Your task to perform on an android device: turn on showing notifications on the lock screen Image 0: 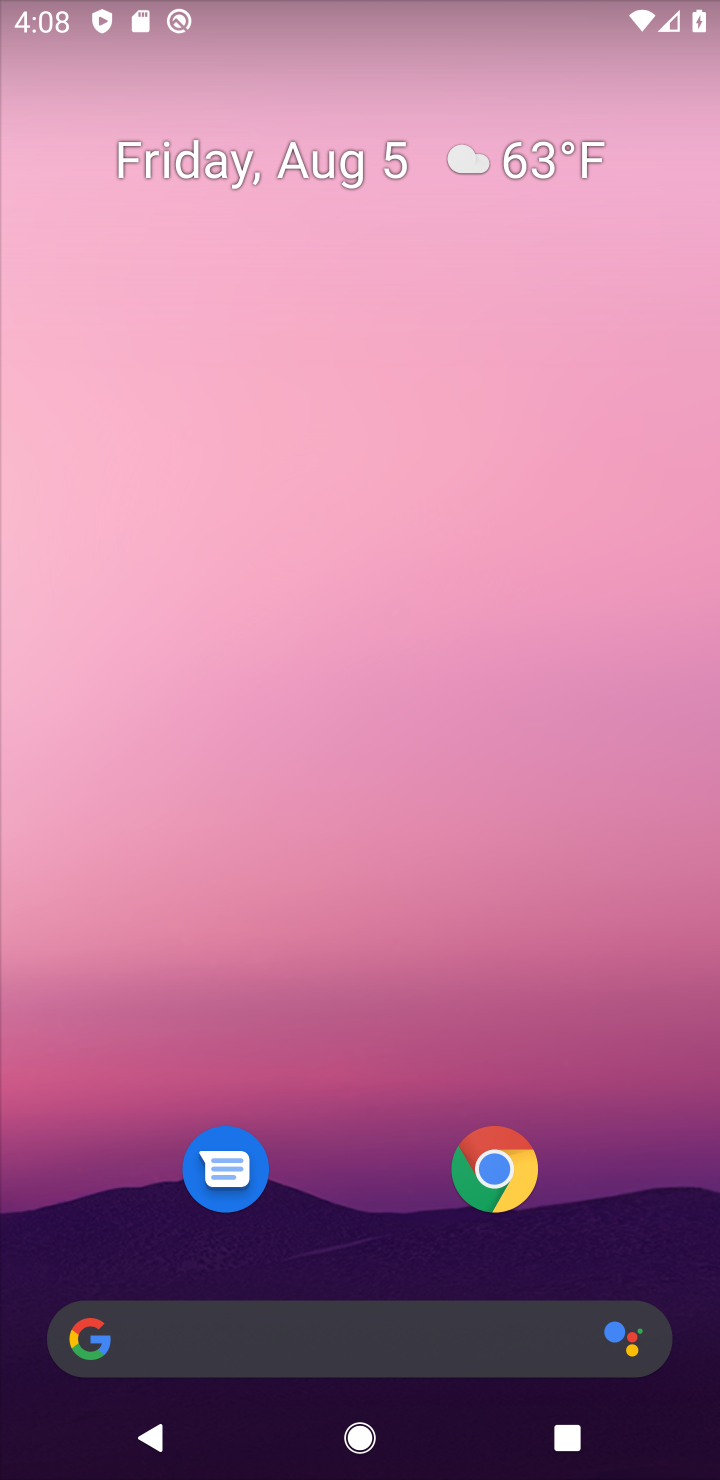
Step 0: drag from (330, 1297) to (367, 511)
Your task to perform on an android device: turn on showing notifications on the lock screen Image 1: 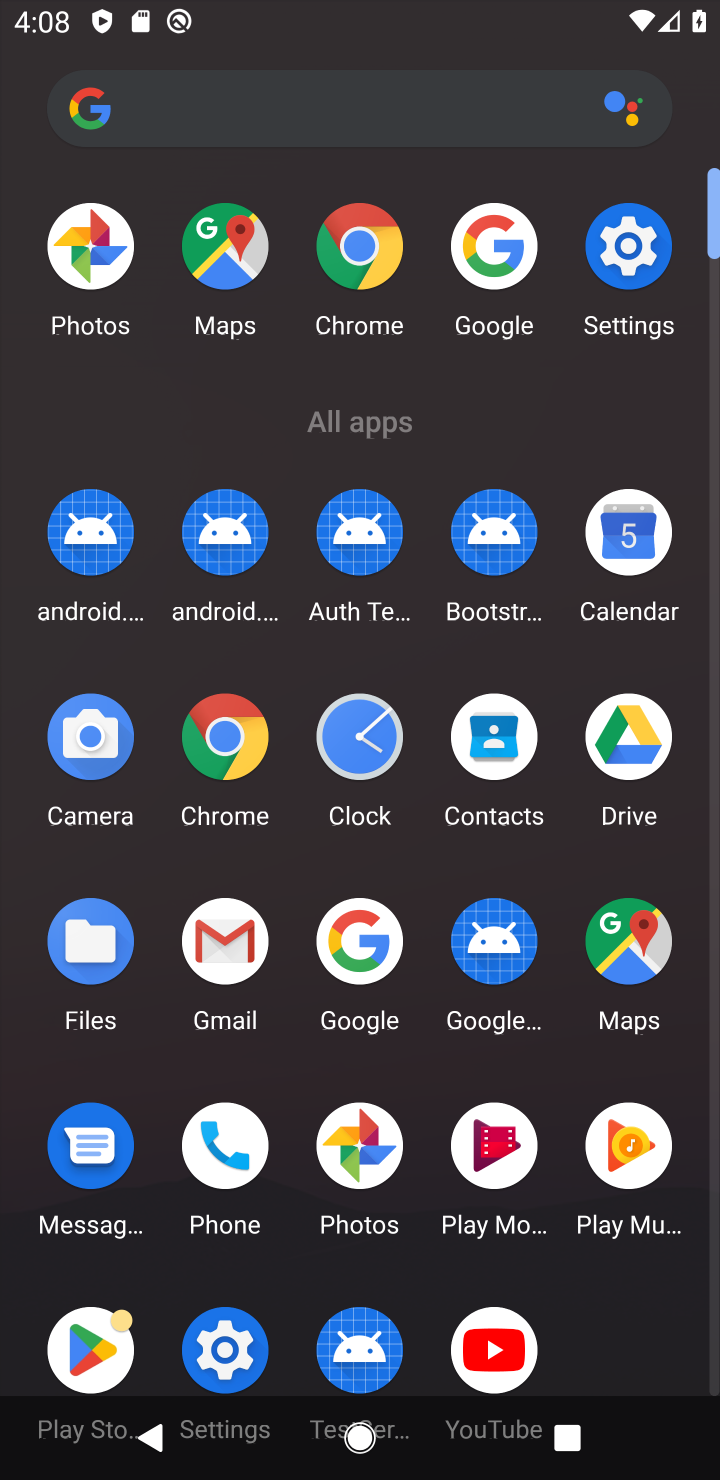
Step 1: click (625, 264)
Your task to perform on an android device: turn on showing notifications on the lock screen Image 2: 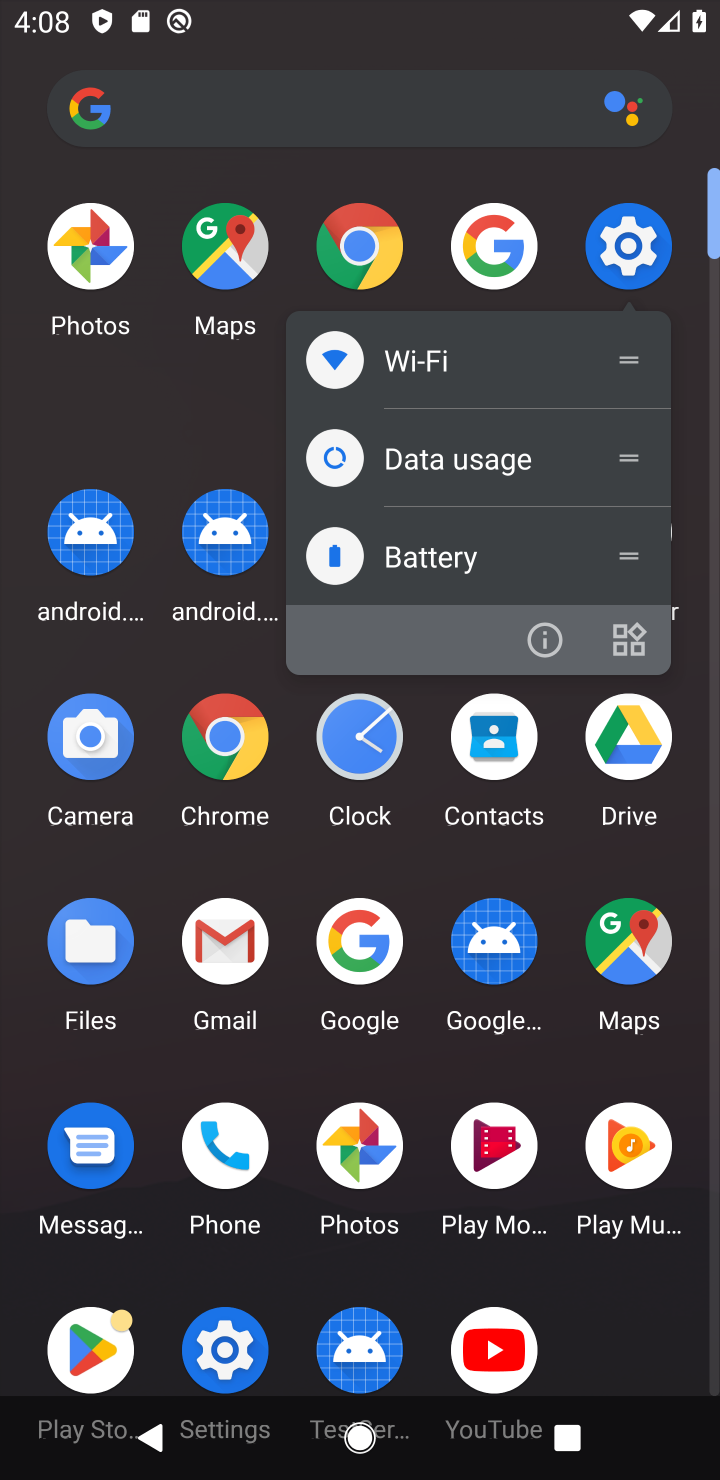
Step 2: click (625, 269)
Your task to perform on an android device: turn on showing notifications on the lock screen Image 3: 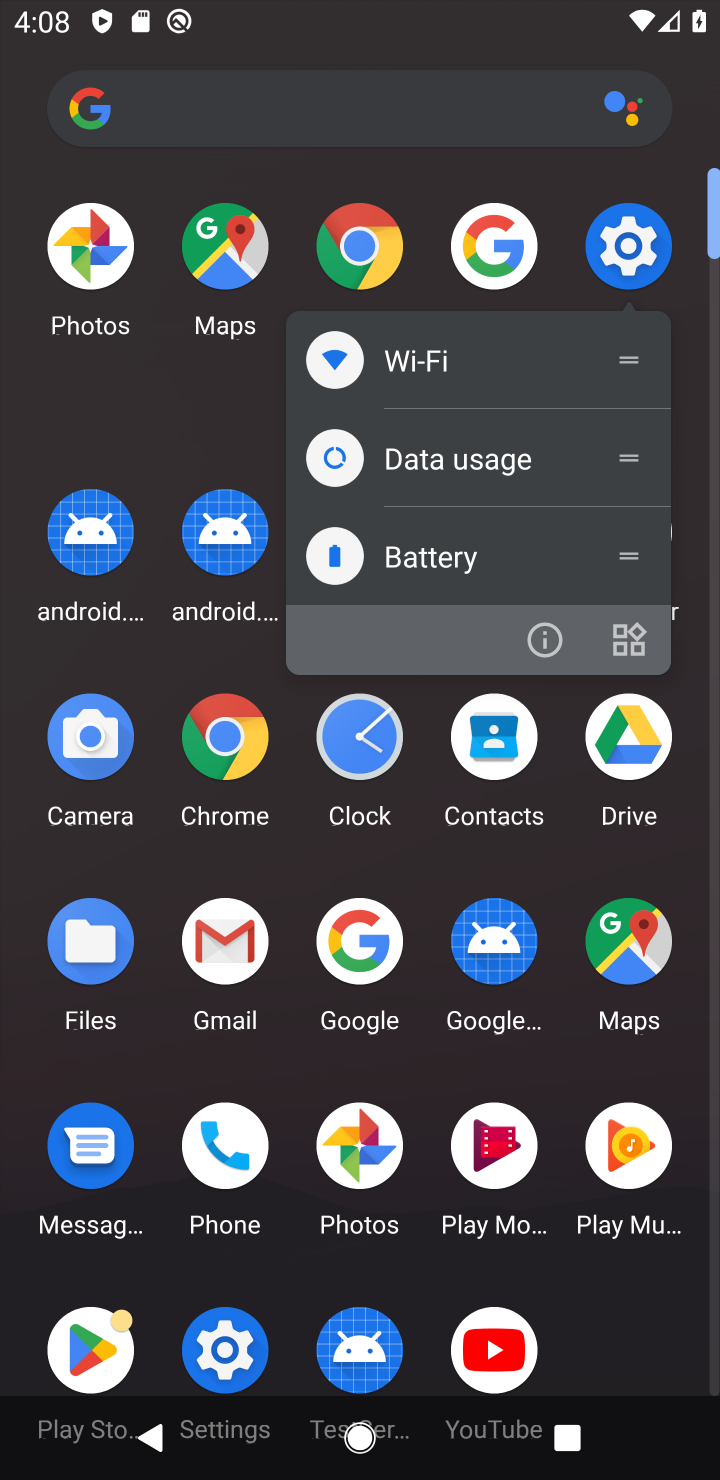
Step 3: click (622, 247)
Your task to perform on an android device: turn on showing notifications on the lock screen Image 4: 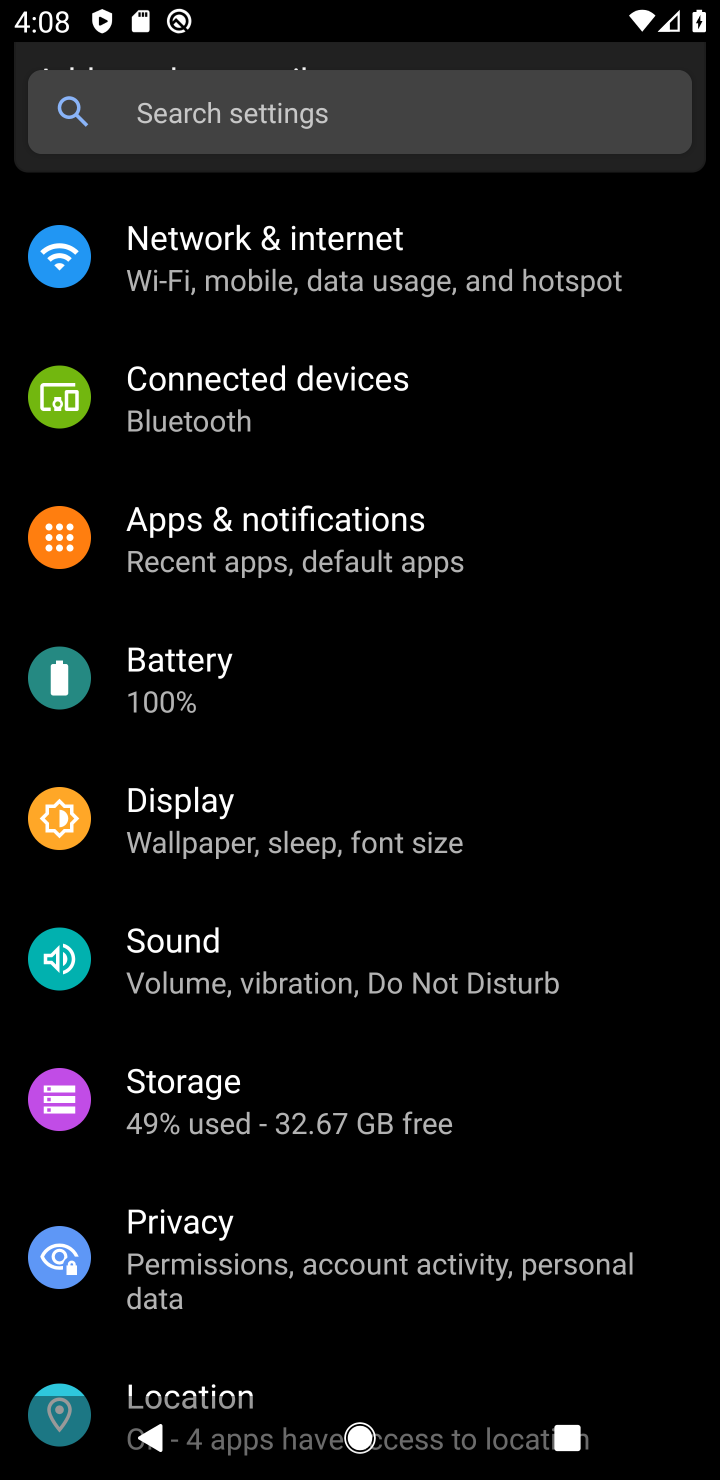
Step 4: click (268, 538)
Your task to perform on an android device: turn on showing notifications on the lock screen Image 5: 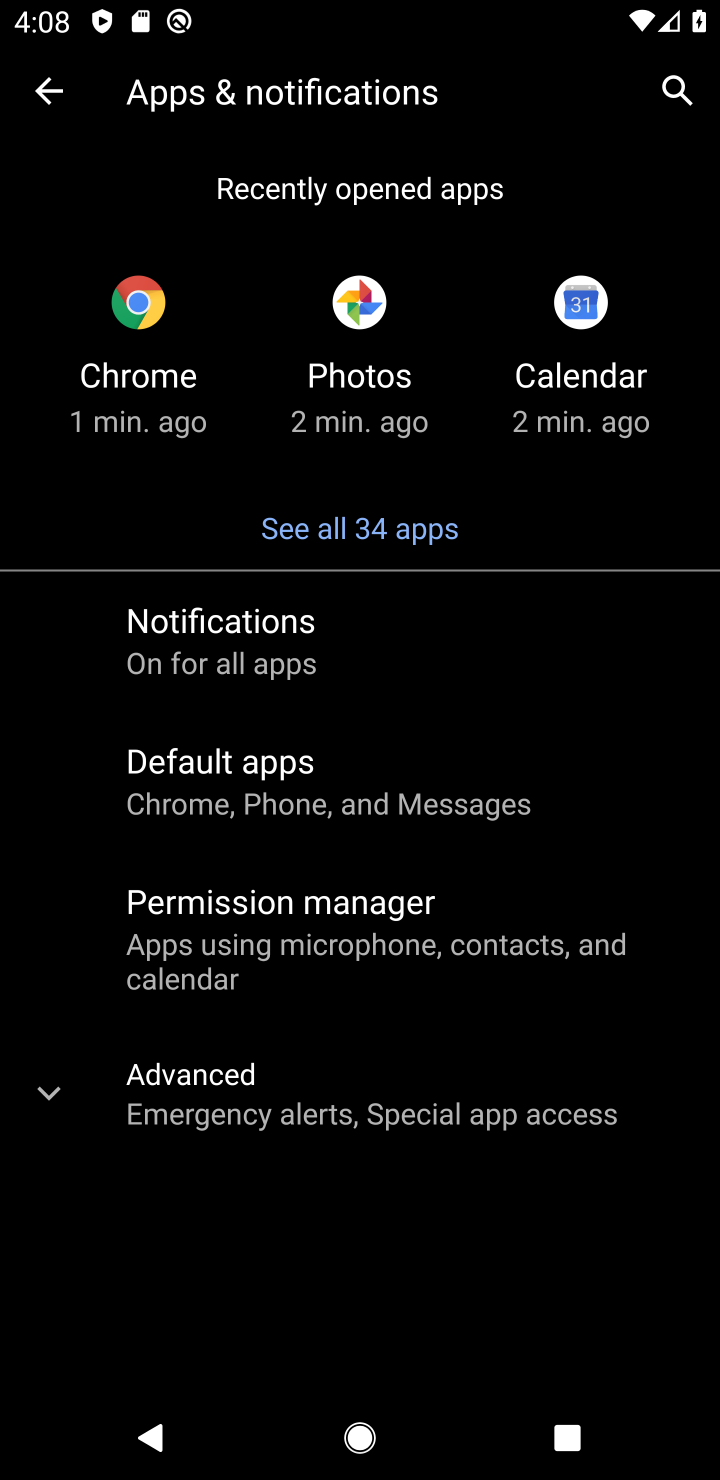
Step 5: click (273, 639)
Your task to perform on an android device: turn on showing notifications on the lock screen Image 6: 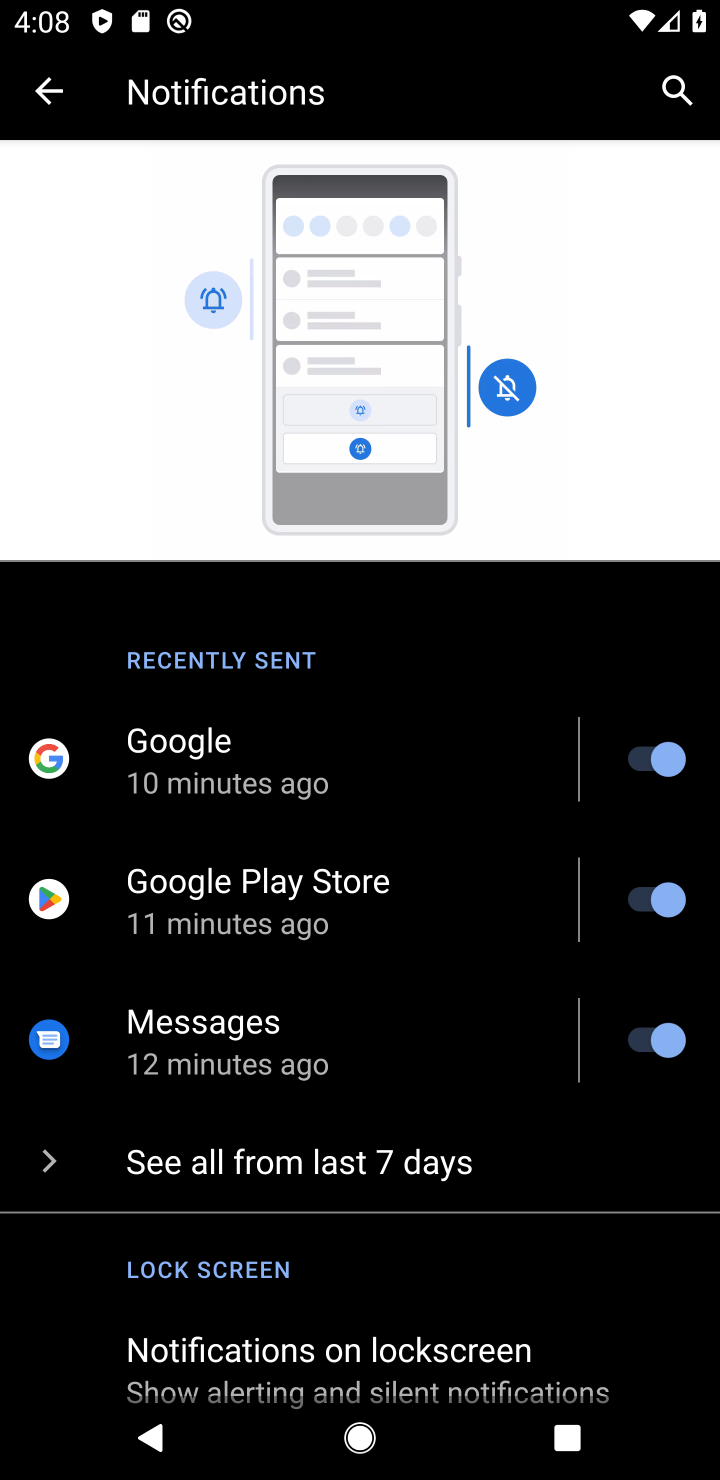
Step 6: click (274, 1363)
Your task to perform on an android device: turn on showing notifications on the lock screen Image 7: 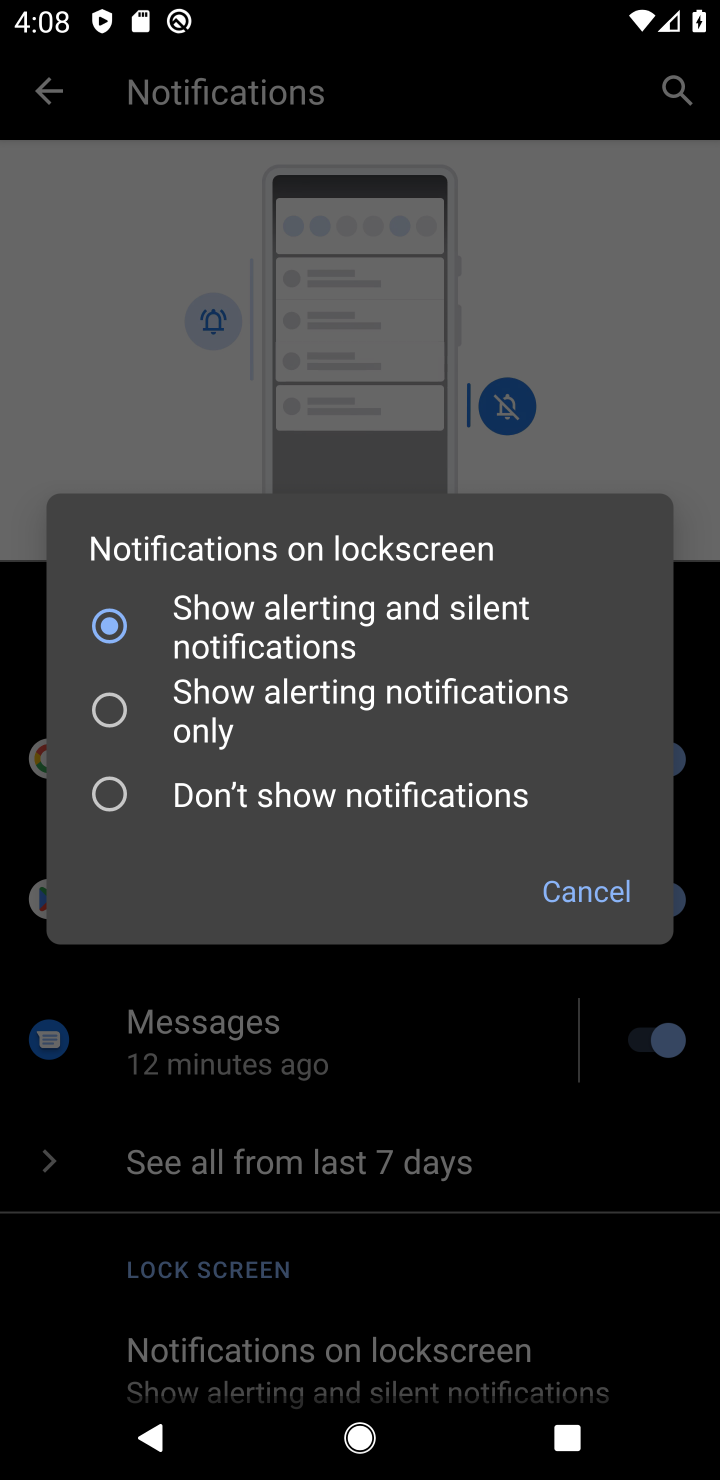
Step 7: task complete